Your task to perform on an android device: Search for Italian restaurants on Maps Image 0: 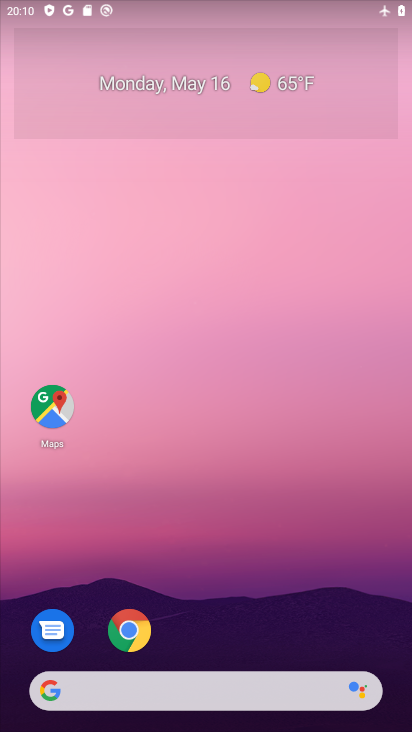
Step 0: click (50, 399)
Your task to perform on an android device: Search for Italian restaurants on Maps Image 1: 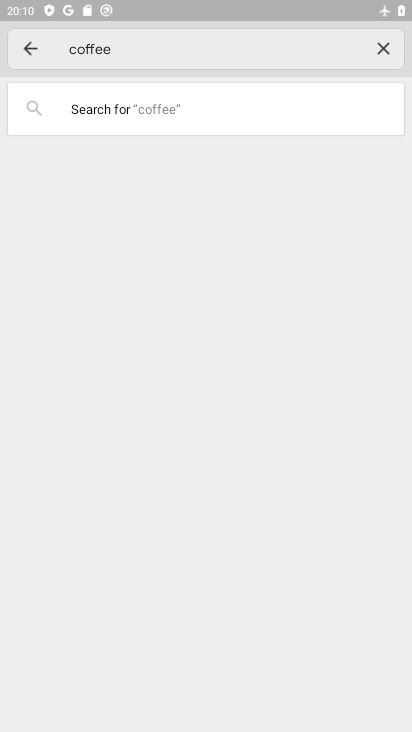
Step 1: click (380, 53)
Your task to perform on an android device: Search for Italian restaurants on Maps Image 2: 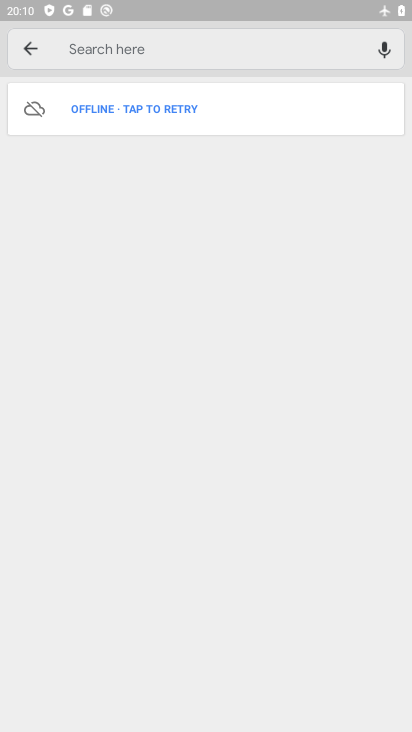
Step 2: click (184, 46)
Your task to perform on an android device: Search for Italian restaurants on Maps Image 3: 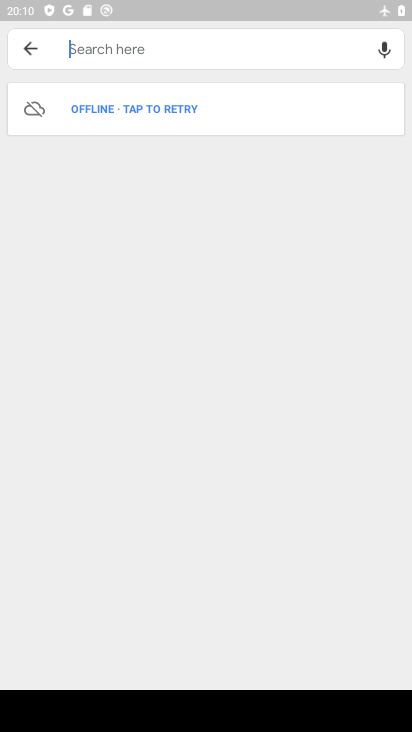
Step 3: type "Italian restaurants"
Your task to perform on an android device: Search for Italian restaurants on Maps Image 4: 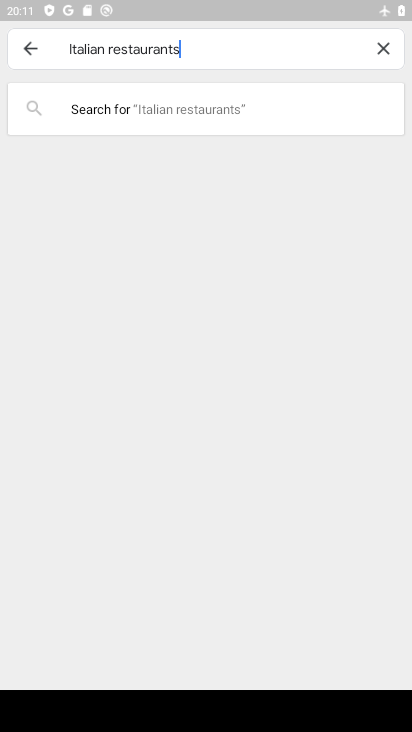
Step 4: task complete